Your task to perform on an android device: Toggle the flashlight Image 0: 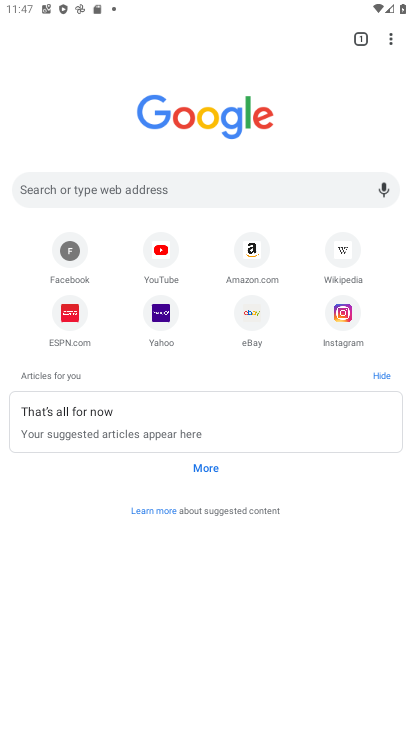
Step 0: press home button
Your task to perform on an android device: Toggle the flashlight Image 1: 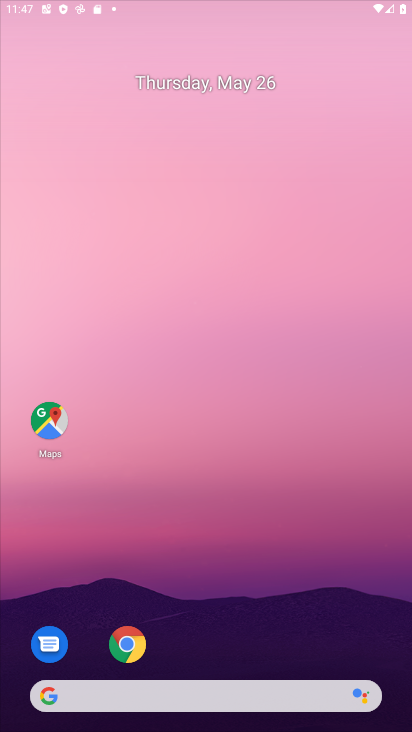
Step 1: drag from (374, 630) to (269, 71)
Your task to perform on an android device: Toggle the flashlight Image 2: 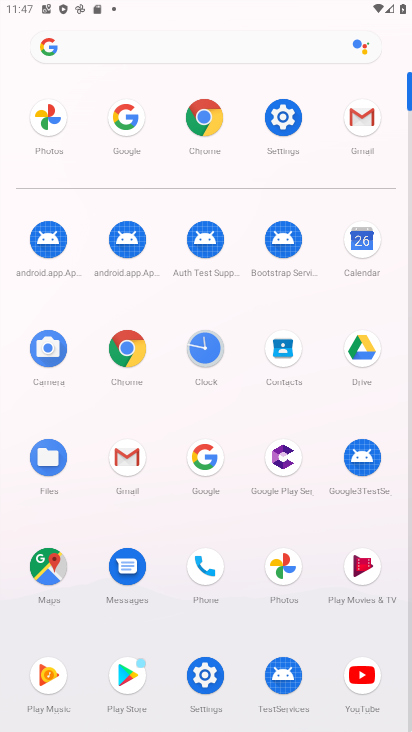
Step 2: click (275, 123)
Your task to perform on an android device: Toggle the flashlight Image 3: 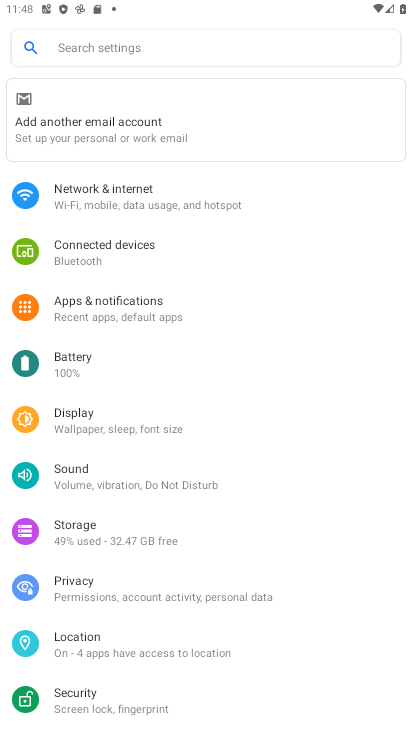
Step 3: task complete